Your task to perform on an android device: Go to Reddit.com Image 0: 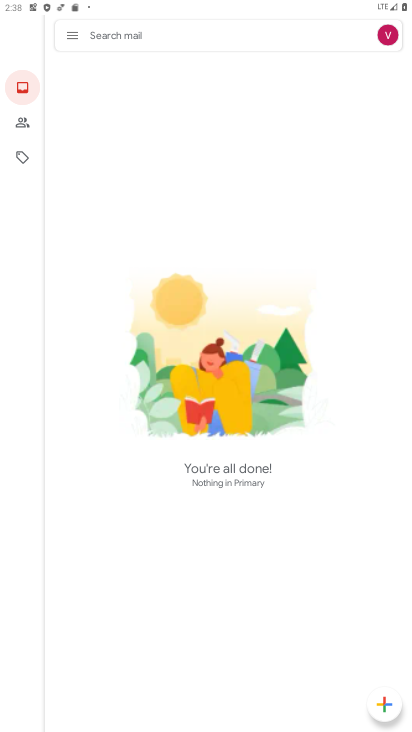
Step 0: press home button
Your task to perform on an android device: Go to Reddit.com Image 1: 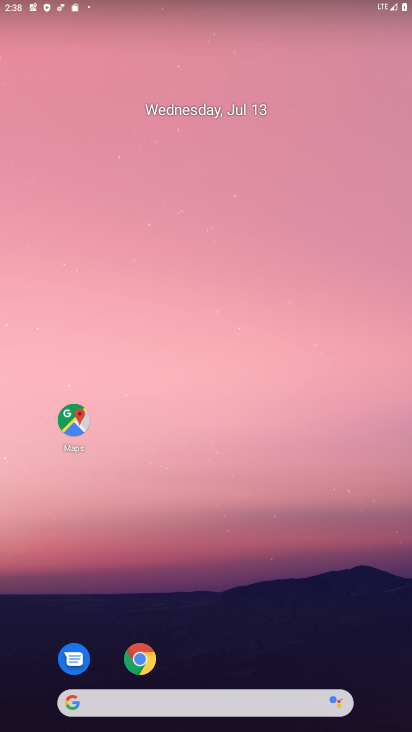
Step 1: click (139, 653)
Your task to perform on an android device: Go to Reddit.com Image 2: 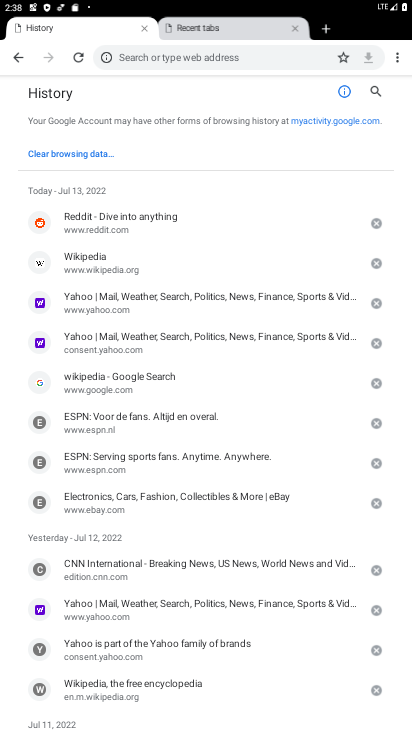
Step 2: click (199, 55)
Your task to perform on an android device: Go to Reddit.com Image 3: 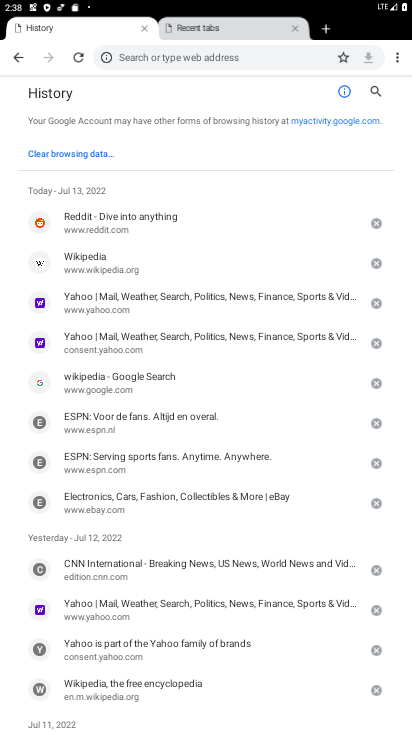
Step 3: click (153, 55)
Your task to perform on an android device: Go to Reddit.com Image 4: 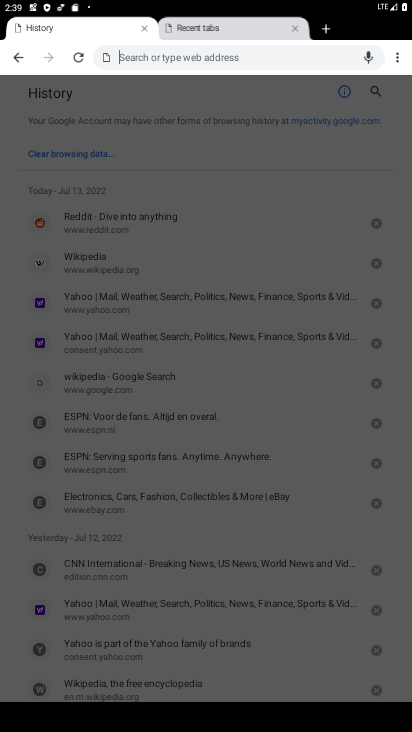
Step 4: type "Reddit.com"
Your task to perform on an android device: Go to Reddit.com Image 5: 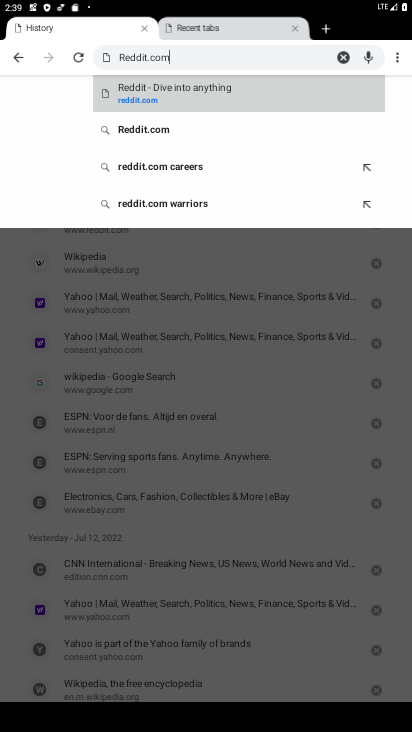
Step 5: click (154, 84)
Your task to perform on an android device: Go to Reddit.com Image 6: 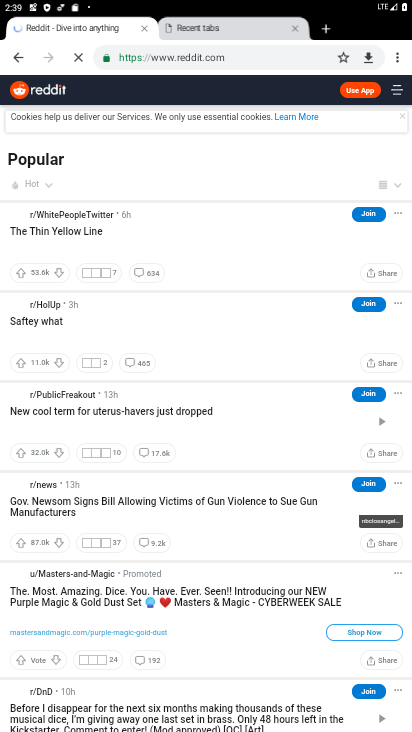
Step 6: task complete